Your task to perform on an android device: Is it going to rain tomorrow? Image 0: 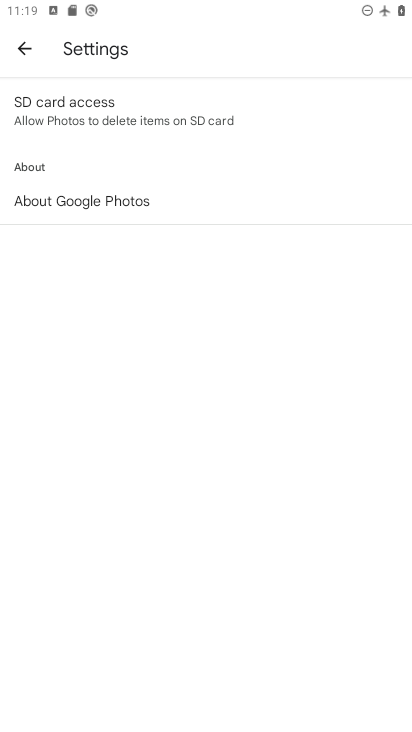
Step 0: drag from (86, 716) to (35, 707)
Your task to perform on an android device: Is it going to rain tomorrow? Image 1: 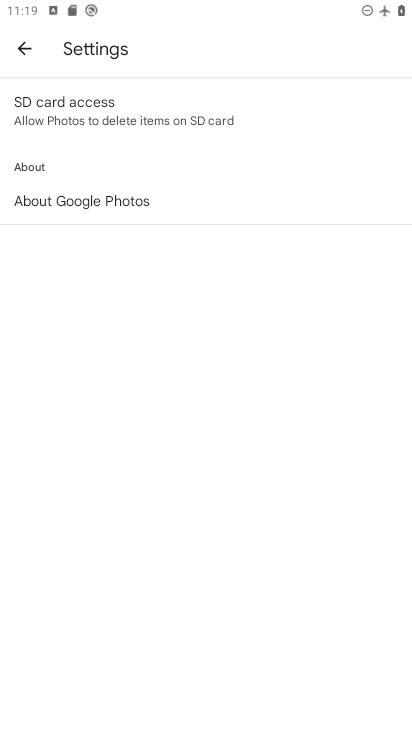
Step 1: press home button
Your task to perform on an android device: Is it going to rain tomorrow? Image 2: 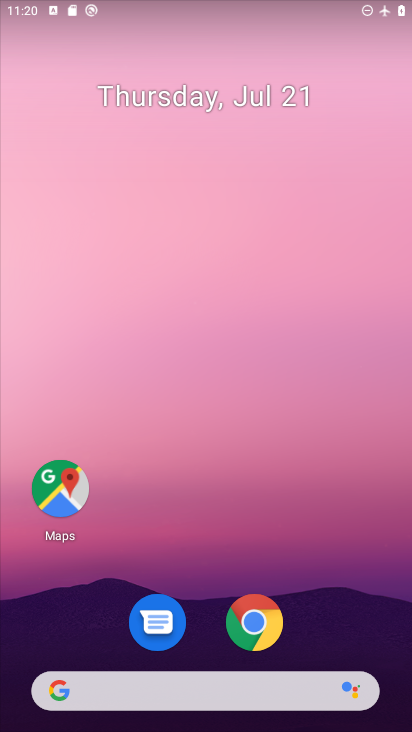
Step 2: click (210, 688)
Your task to perform on an android device: Is it going to rain tomorrow? Image 3: 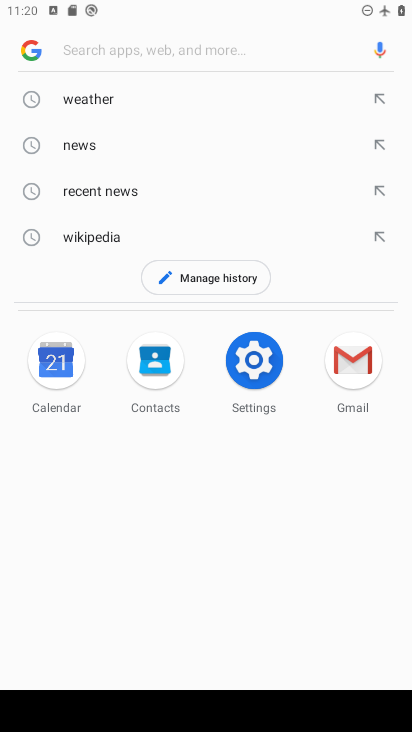
Step 3: type " Is it going to rain tomorrow?"
Your task to perform on an android device: Is it going to rain tomorrow? Image 4: 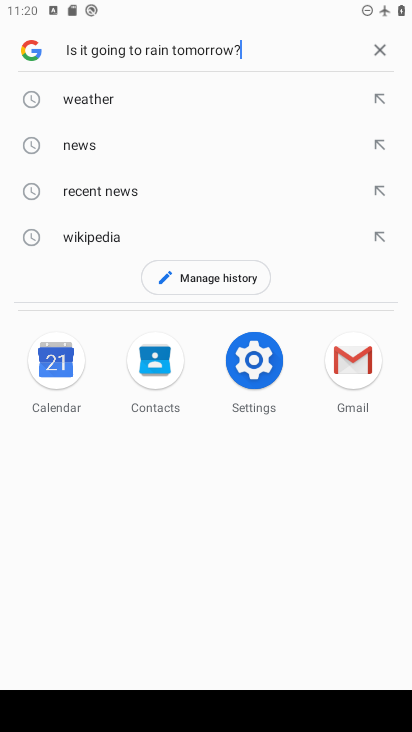
Step 4: press enter
Your task to perform on an android device: Is it going to rain tomorrow? Image 5: 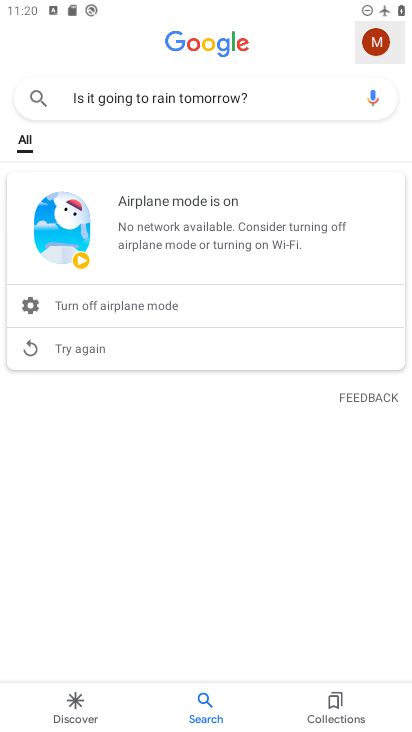
Step 5: task complete